Your task to perform on an android device: toggle notifications settings in the gmail app Image 0: 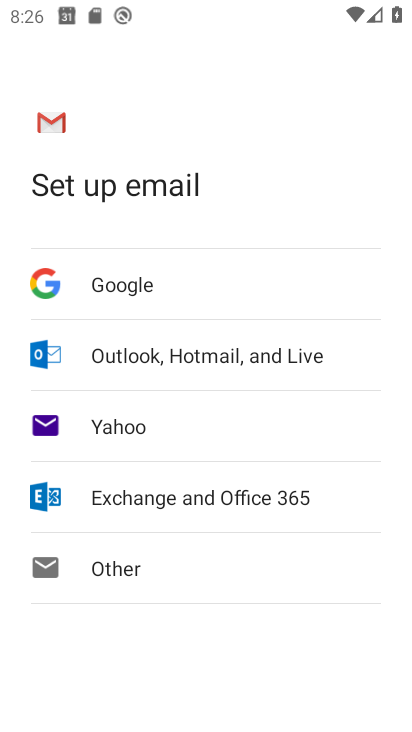
Step 0: press home button
Your task to perform on an android device: toggle notifications settings in the gmail app Image 1: 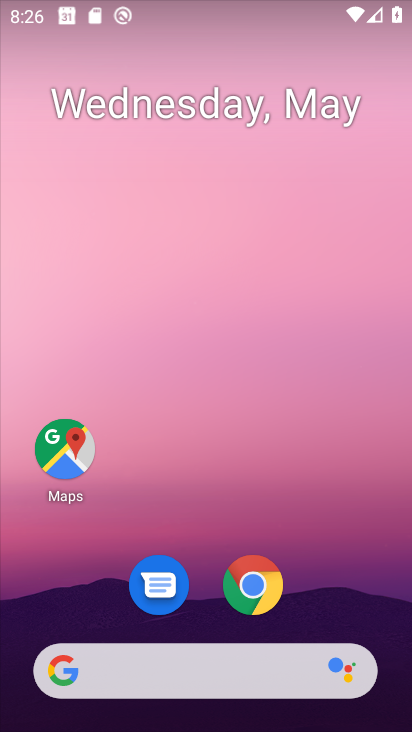
Step 1: drag from (262, 481) to (248, 27)
Your task to perform on an android device: toggle notifications settings in the gmail app Image 2: 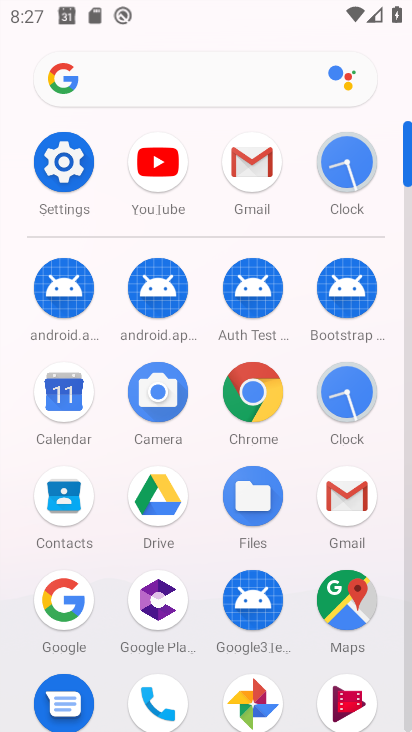
Step 2: click (253, 155)
Your task to perform on an android device: toggle notifications settings in the gmail app Image 3: 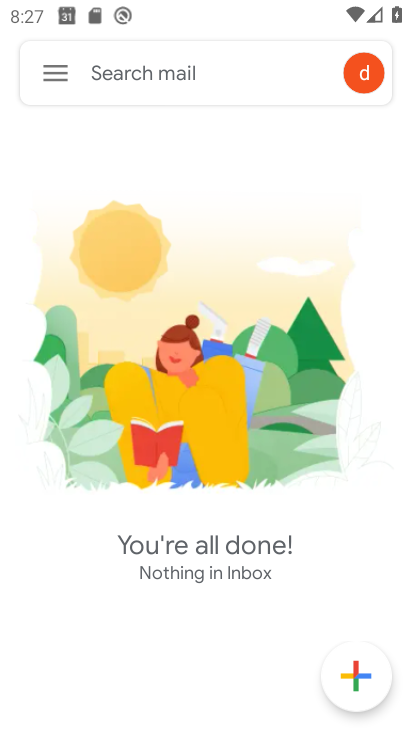
Step 3: click (56, 65)
Your task to perform on an android device: toggle notifications settings in the gmail app Image 4: 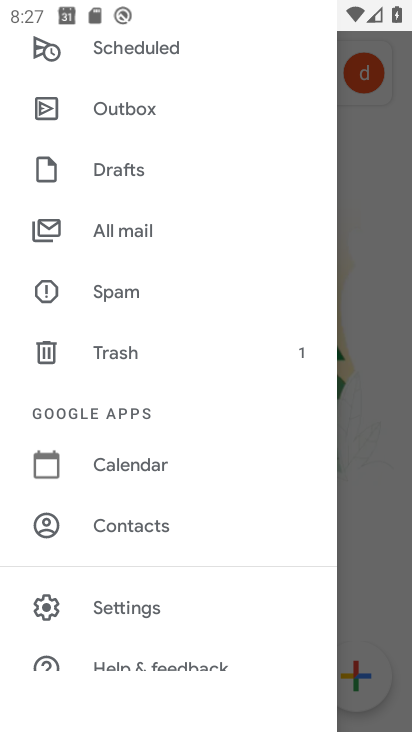
Step 4: click (157, 606)
Your task to perform on an android device: toggle notifications settings in the gmail app Image 5: 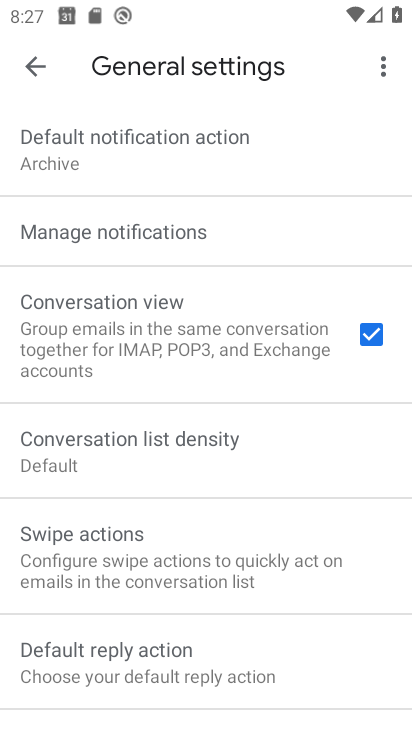
Step 5: click (150, 222)
Your task to perform on an android device: toggle notifications settings in the gmail app Image 6: 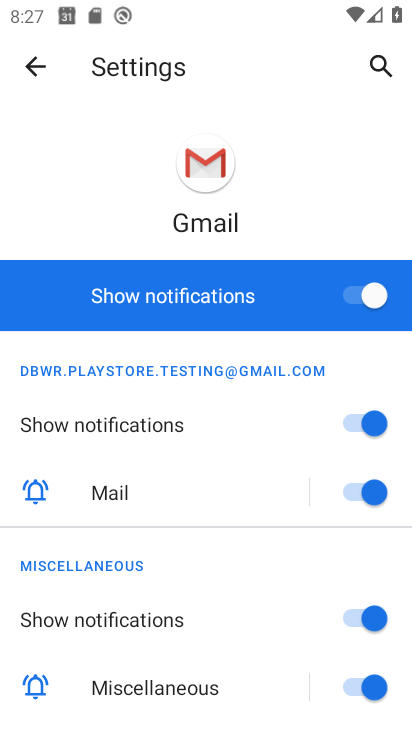
Step 6: click (359, 288)
Your task to perform on an android device: toggle notifications settings in the gmail app Image 7: 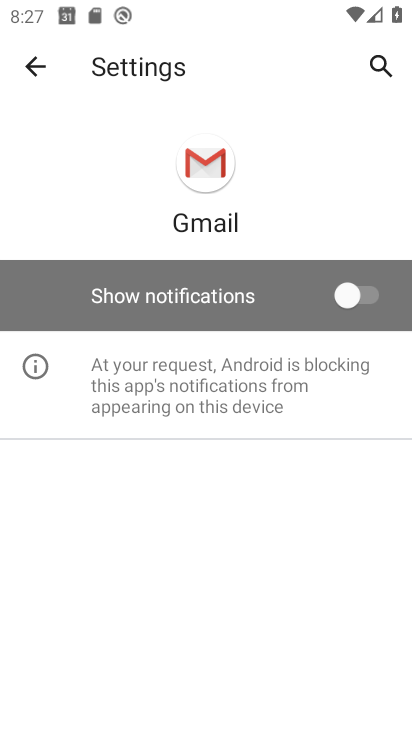
Step 7: task complete